Your task to perform on an android device: Search for Mexican restaurants on Maps Image 0: 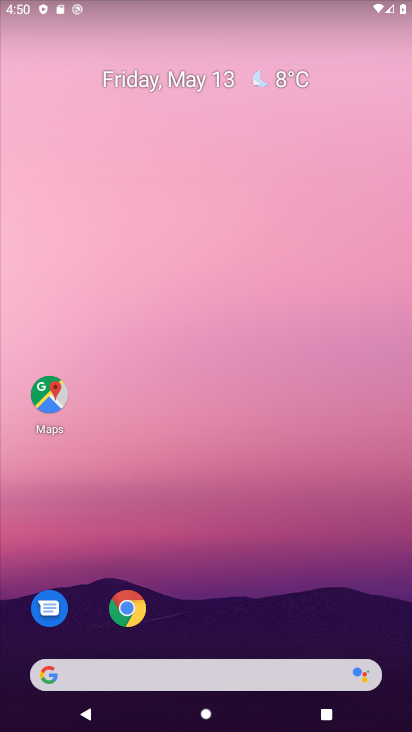
Step 0: click (49, 393)
Your task to perform on an android device: Search for Mexican restaurants on Maps Image 1: 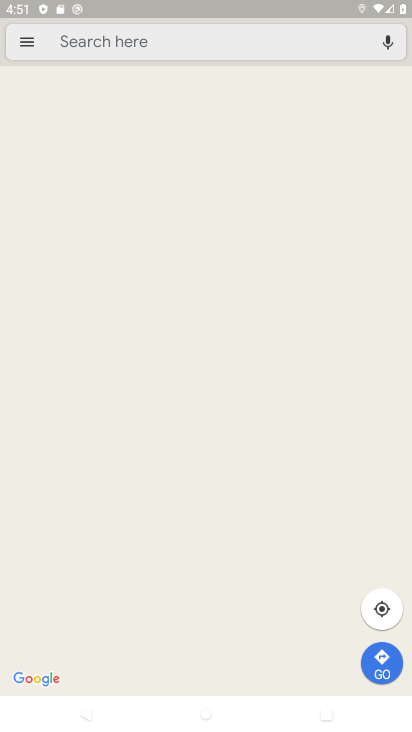
Step 1: click (125, 37)
Your task to perform on an android device: Search for Mexican restaurants on Maps Image 2: 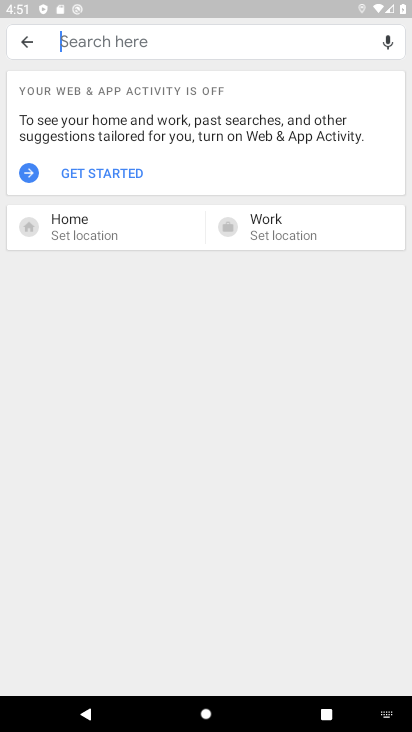
Step 2: type "Mexican restaurants"
Your task to perform on an android device: Search for Mexican restaurants on Maps Image 3: 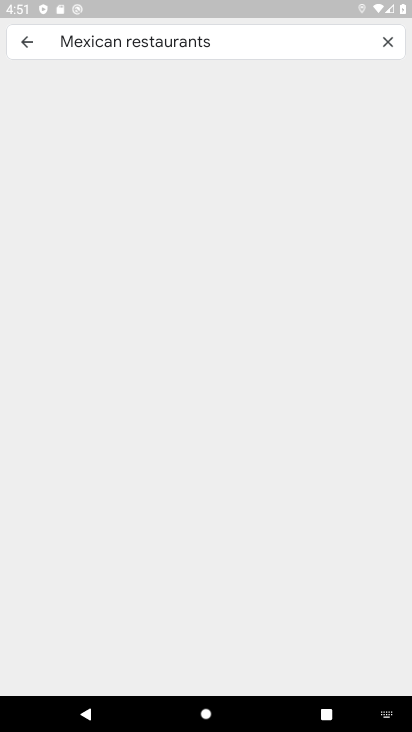
Step 3: click (189, 165)
Your task to perform on an android device: Search for Mexican restaurants on Maps Image 4: 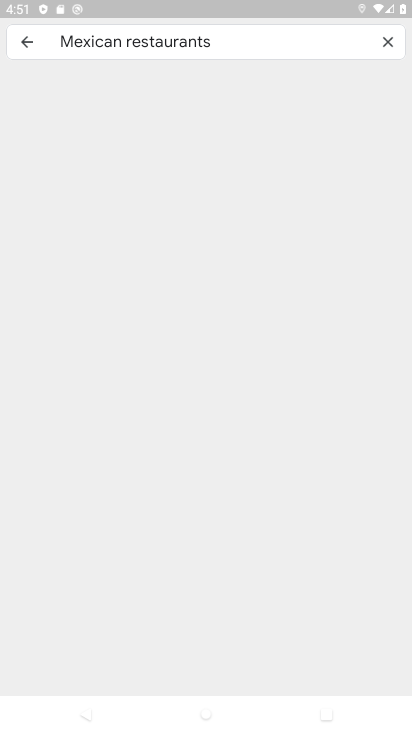
Step 4: task complete